Your task to perform on an android device: Go to settings Image 0: 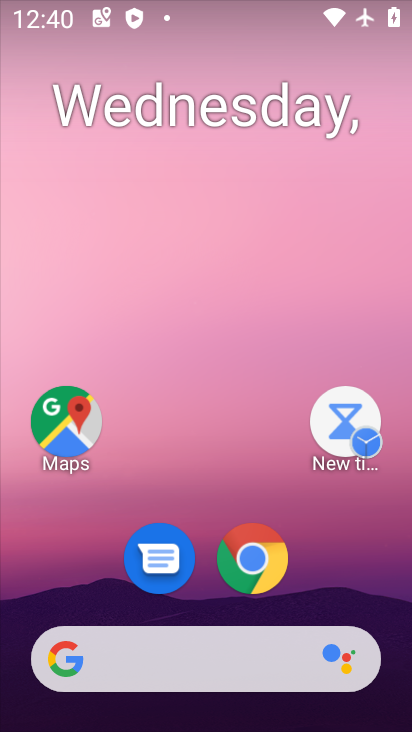
Step 0: drag from (222, 503) to (161, 30)
Your task to perform on an android device: Go to settings Image 1: 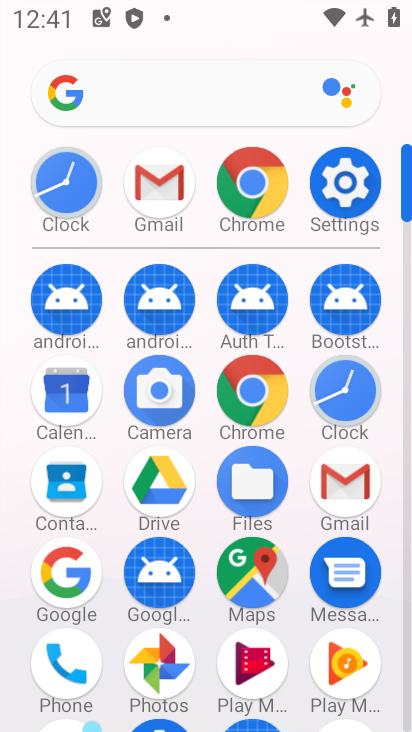
Step 1: click (337, 187)
Your task to perform on an android device: Go to settings Image 2: 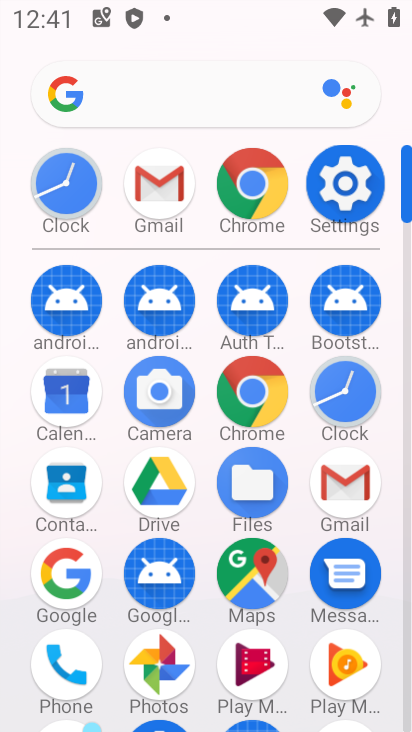
Step 2: drag from (360, 164) to (342, 194)
Your task to perform on an android device: Go to settings Image 3: 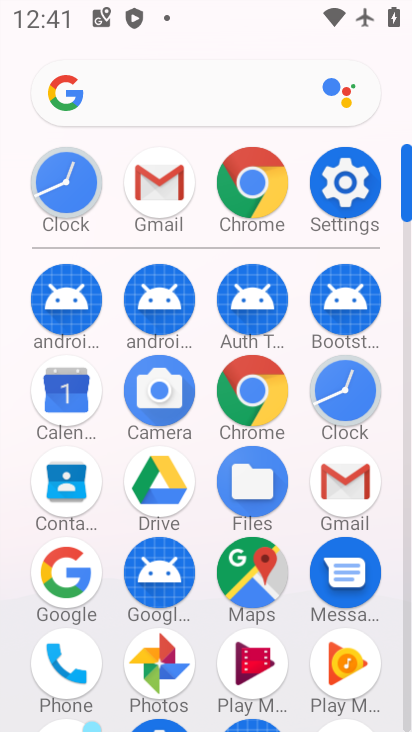
Step 3: click (339, 197)
Your task to perform on an android device: Go to settings Image 4: 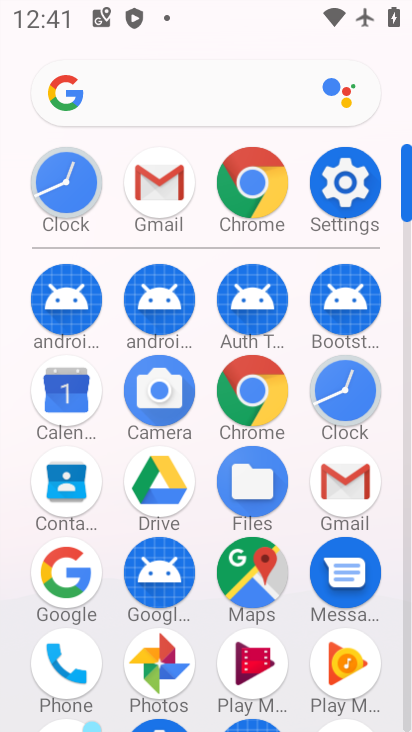
Step 4: click (337, 180)
Your task to perform on an android device: Go to settings Image 5: 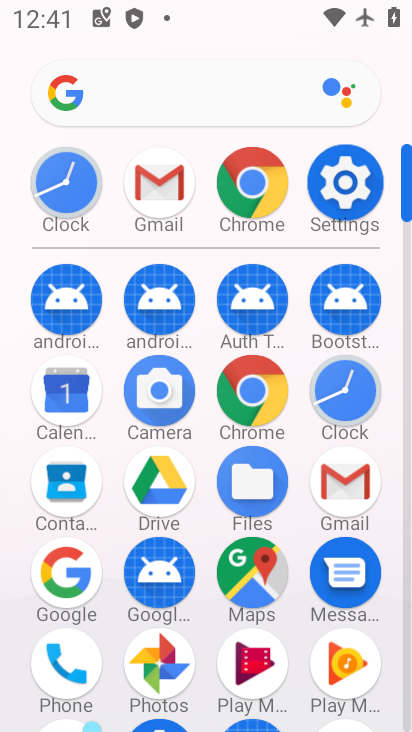
Step 5: click (340, 179)
Your task to perform on an android device: Go to settings Image 6: 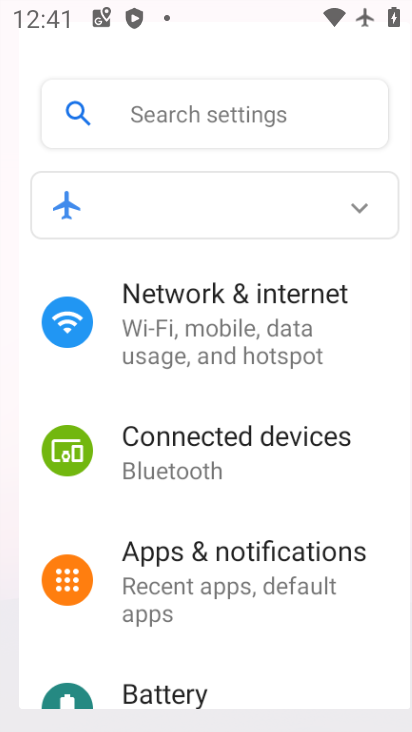
Step 6: click (334, 191)
Your task to perform on an android device: Go to settings Image 7: 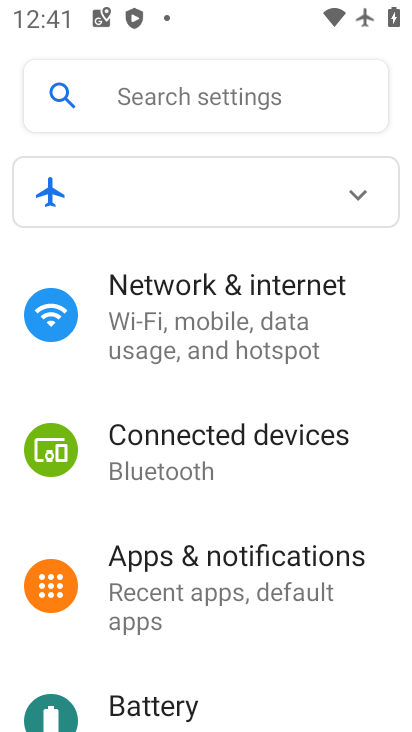
Step 7: click (338, 189)
Your task to perform on an android device: Go to settings Image 8: 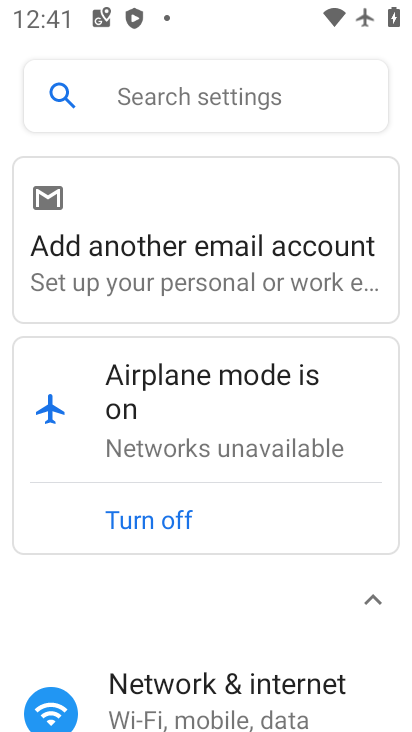
Step 8: task complete